Your task to perform on an android device: empty trash in the gmail app Image 0: 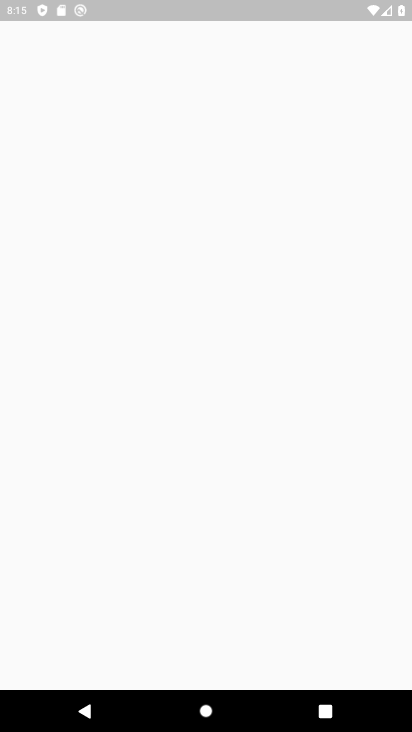
Step 0: press home button
Your task to perform on an android device: empty trash in the gmail app Image 1: 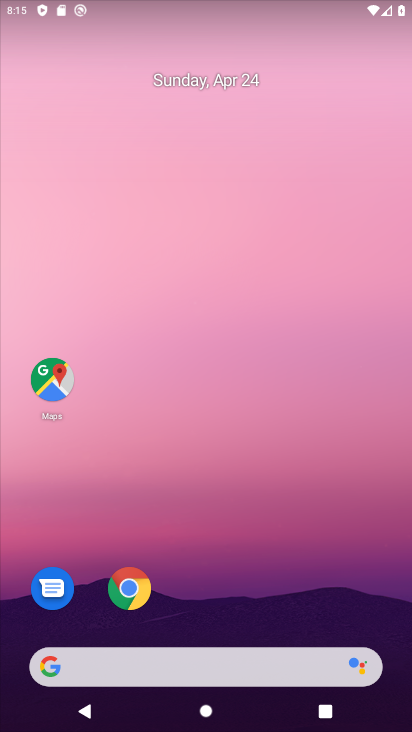
Step 1: drag from (231, 582) to (134, 0)
Your task to perform on an android device: empty trash in the gmail app Image 2: 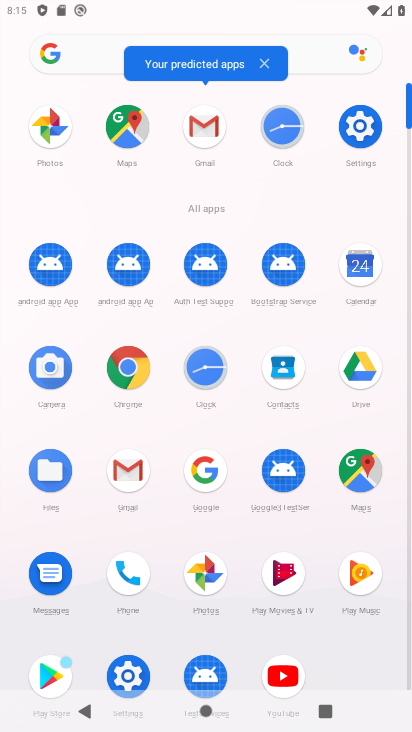
Step 2: click (200, 128)
Your task to perform on an android device: empty trash in the gmail app Image 3: 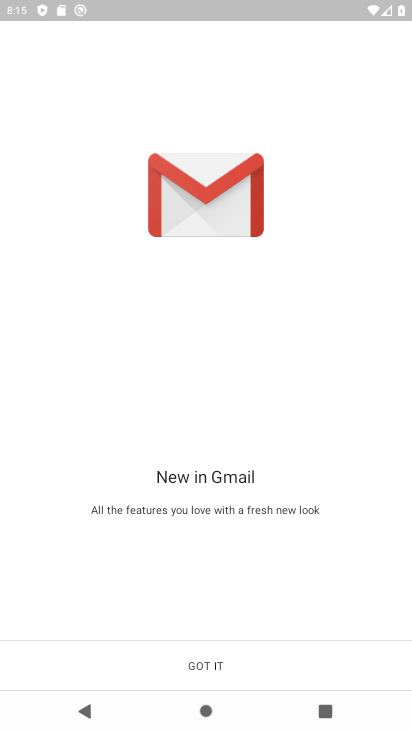
Step 3: click (209, 666)
Your task to perform on an android device: empty trash in the gmail app Image 4: 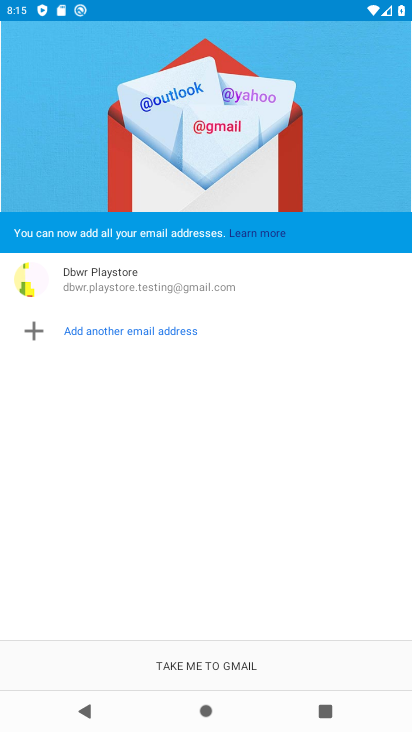
Step 4: click (209, 666)
Your task to perform on an android device: empty trash in the gmail app Image 5: 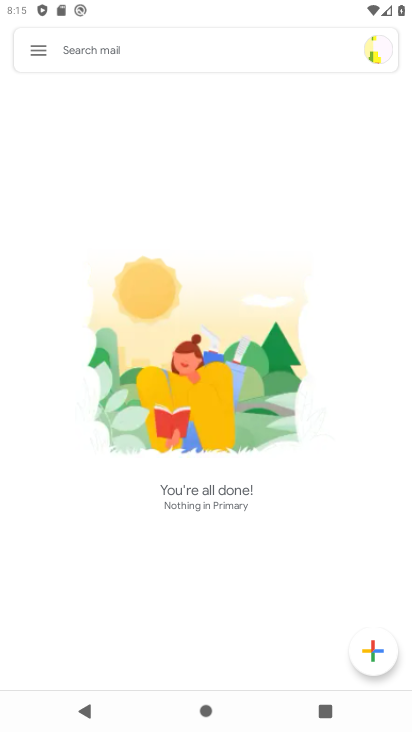
Step 5: click (39, 47)
Your task to perform on an android device: empty trash in the gmail app Image 6: 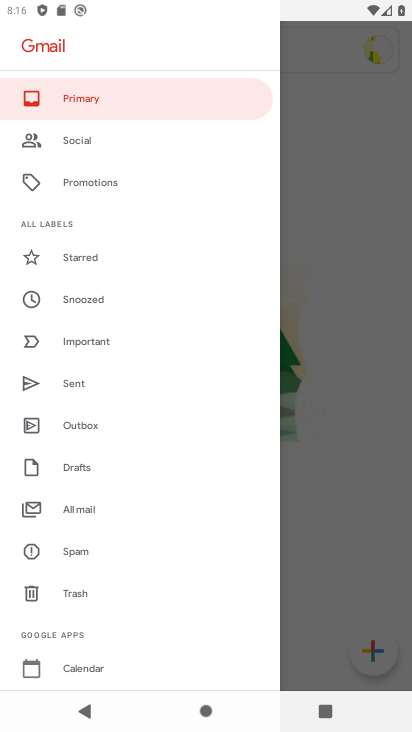
Step 6: click (76, 593)
Your task to perform on an android device: empty trash in the gmail app Image 7: 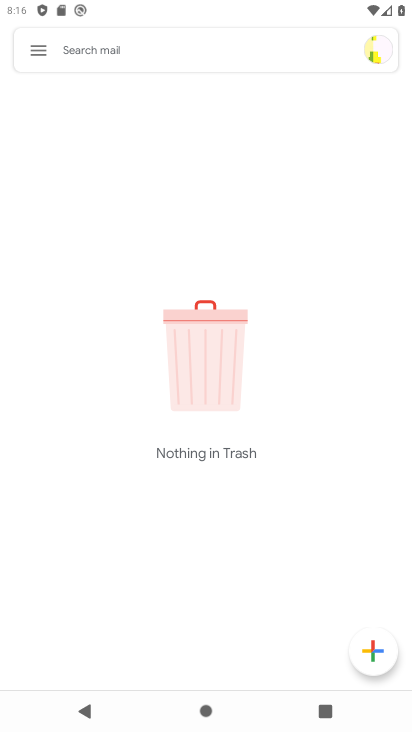
Step 7: task complete